Your task to perform on an android device: turn smart compose on in the gmail app Image 0: 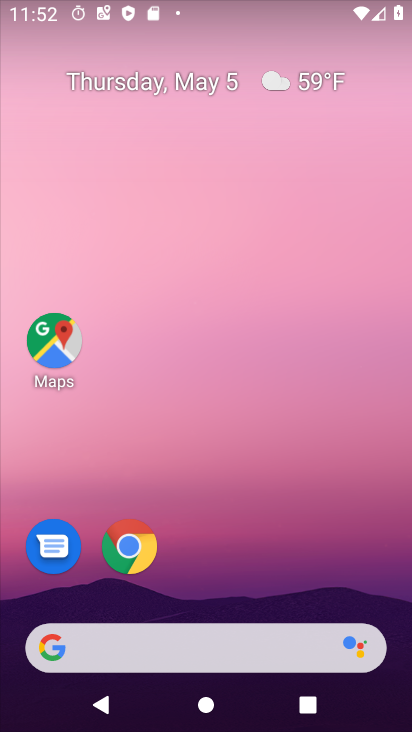
Step 0: drag from (312, 536) to (321, 158)
Your task to perform on an android device: turn smart compose on in the gmail app Image 1: 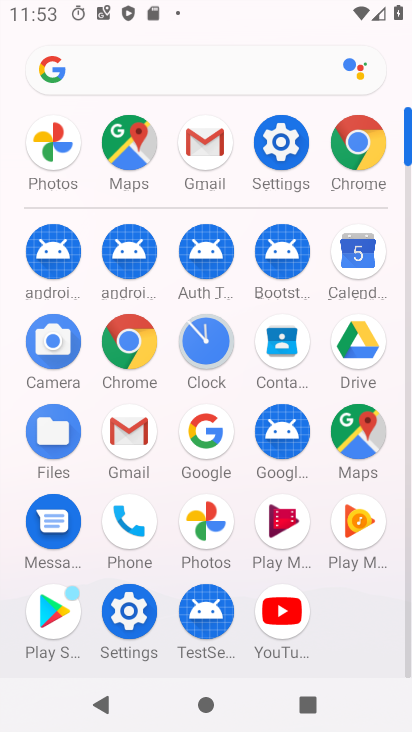
Step 1: click (204, 159)
Your task to perform on an android device: turn smart compose on in the gmail app Image 2: 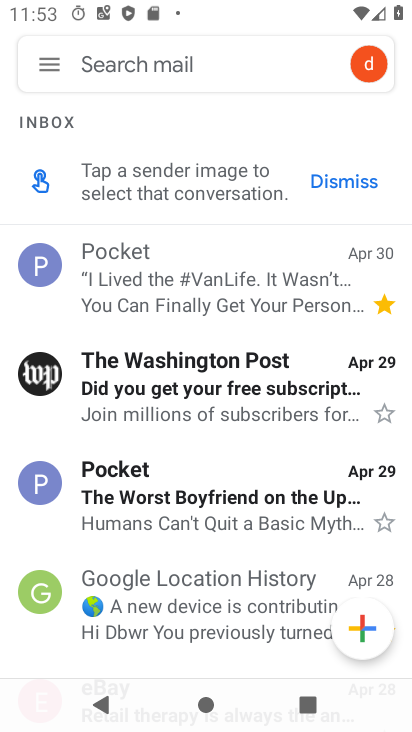
Step 2: click (56, 67)
Your task to perform on an android device: turn smart compose on in the gmail app Image 3: 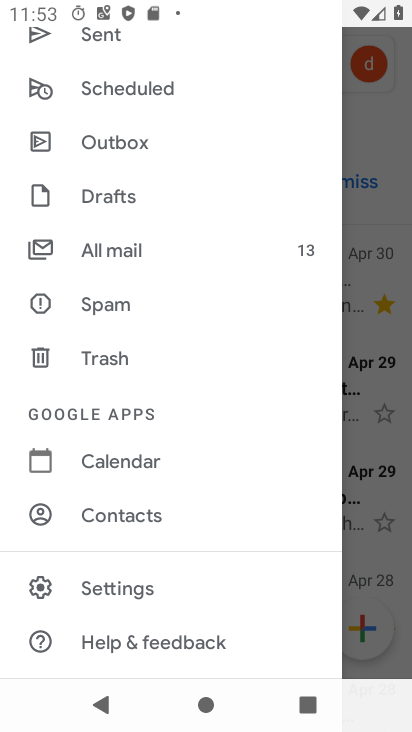
Step 3: click (133, 586)
Your task to perform on an android device: turn smart compose on in the gmail app Image 4: 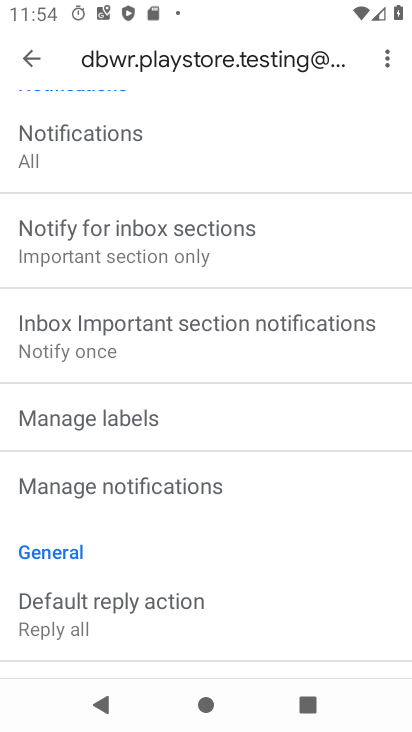
Step 4: task complete